Your task to perform on an android device: Go to Reddit.com Image 0: 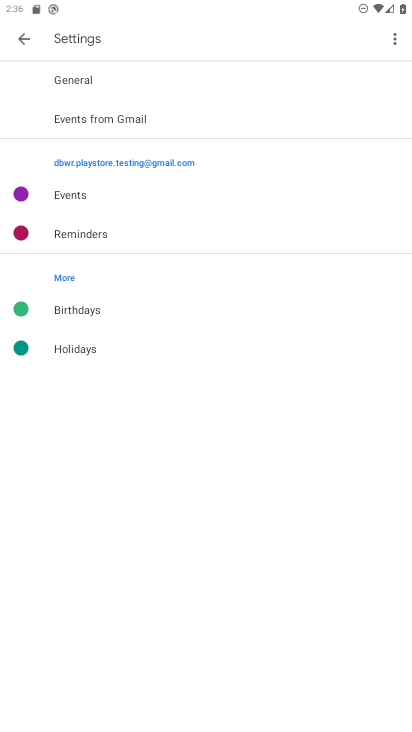
Step 0: press home button
Your task to perform on an android device: Go to Reddit.com Image 1: 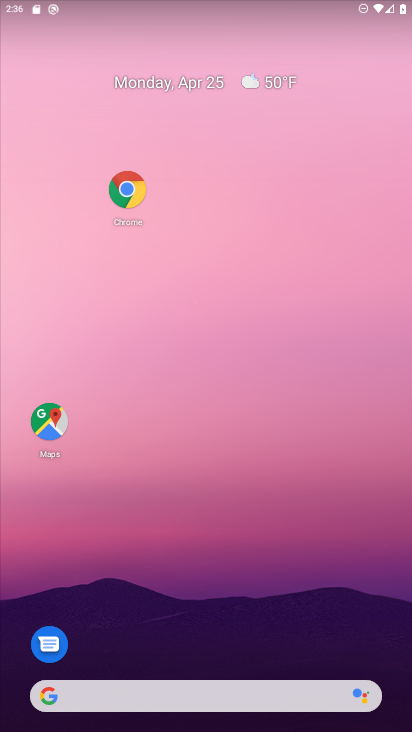
Step 1: drag from (222, 588) to (257, 257)
Your task to perform on an android device: Go to Reddit.com Image 2: 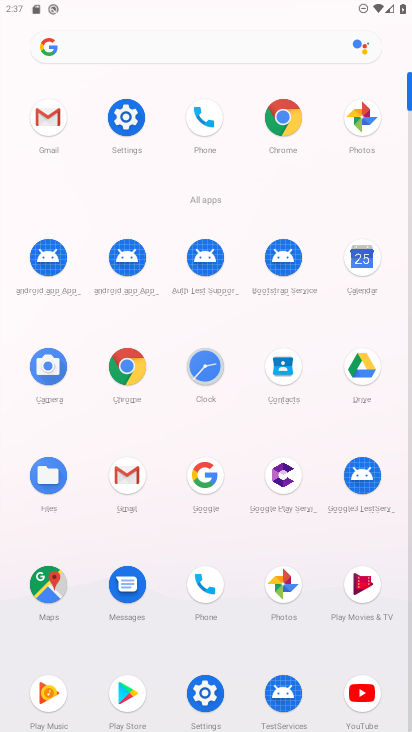
Step 2: click (289, 117)
Your task to perform on an android device: Go to Reddit.com Image 3: 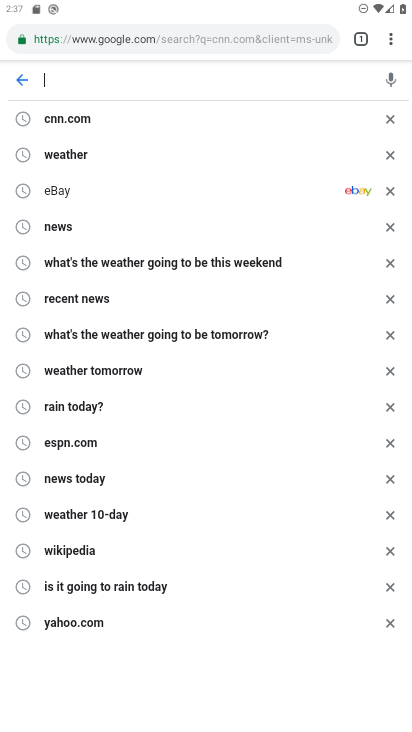
Step 3: type "Reddit.com"
Your task to perform on an android device: Go to Reddit.com Image 4: 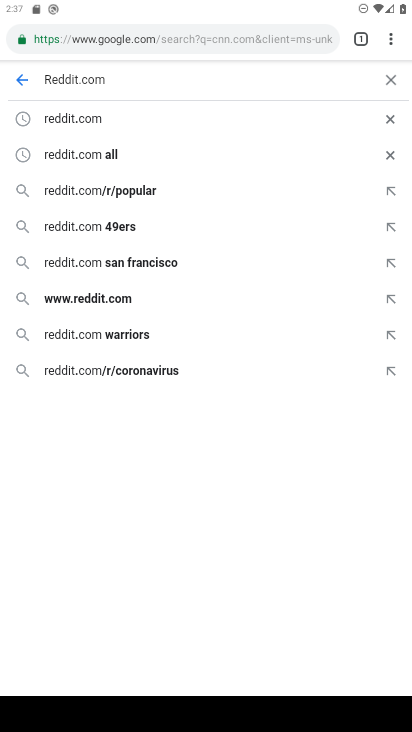
Step 4: click (71, 112)
Your task to perform on an android device: Go to Reddit.com Image 5: 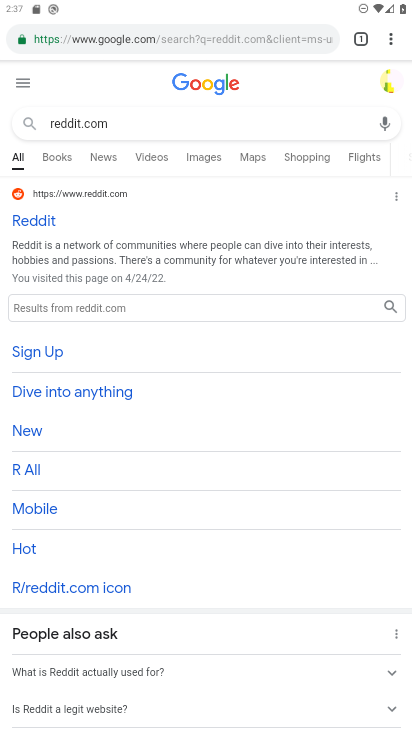
Step 5: task complete